Your task to perform on an android device: star an email in the gmail app Image 0: 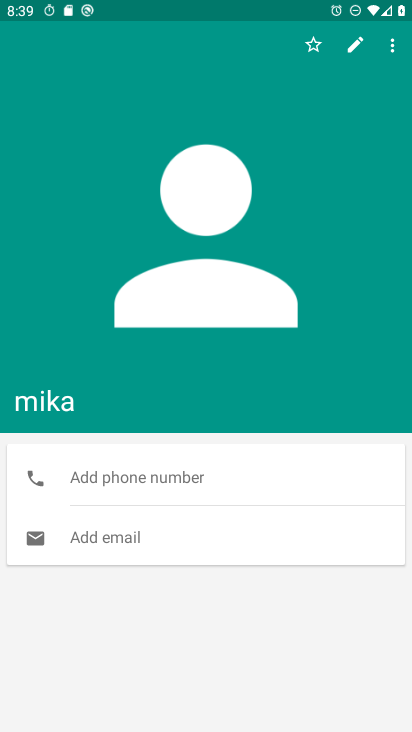
Step 0: press home button
Your task to perform on an android device: star an email in the gmail app Image 1: 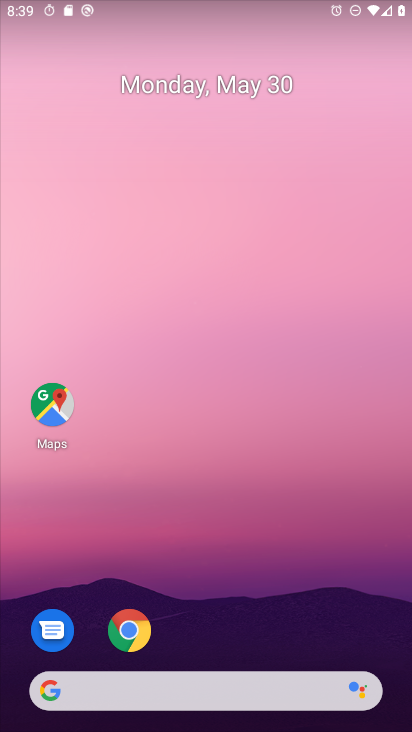
Step 1: drag from (318, 635) to (342, 15)
Your task to perform on an android device: star an email in the gmail app Image 2: 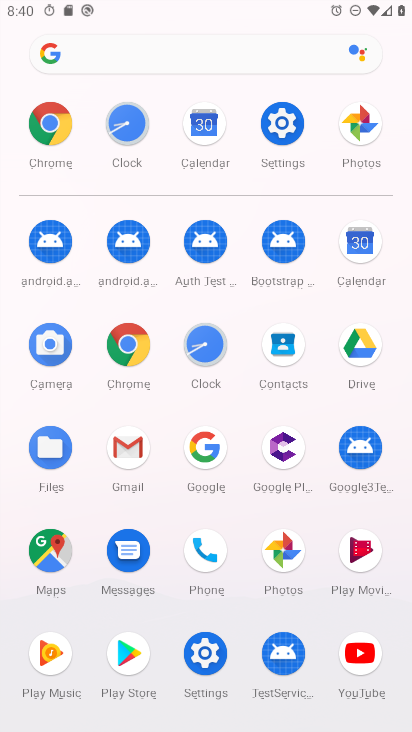
Step 2: click (101, 440)
Your task to perform on an android device: star an email in the gmail app Image 3: 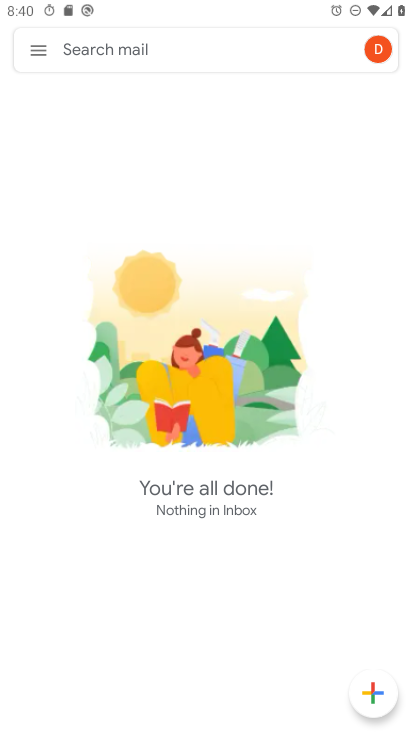
Step 3: click (34, 32)
Your task to perform on an android device: star an email in the gmail app Image 4: 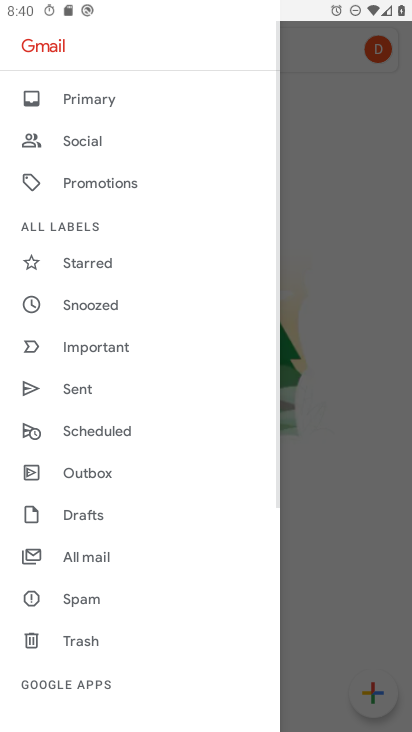
Step 4: click (66, 87)
Your task to perform on an android device: star an email in the gmail app Image 5: 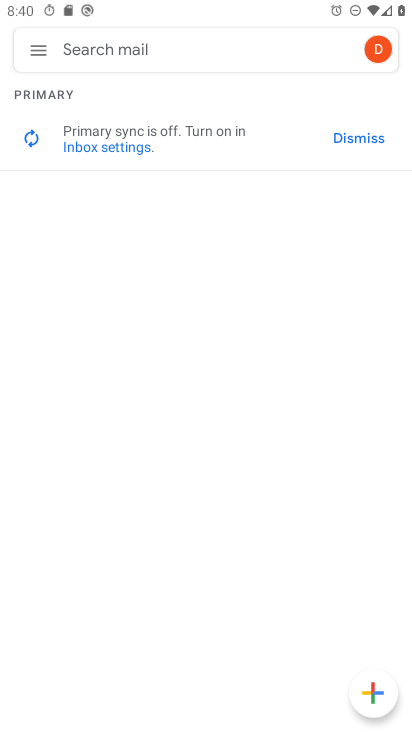
Step 5: task complete